Your task to perform on an android device: Show me productivity apps on the Play Store Image 0: 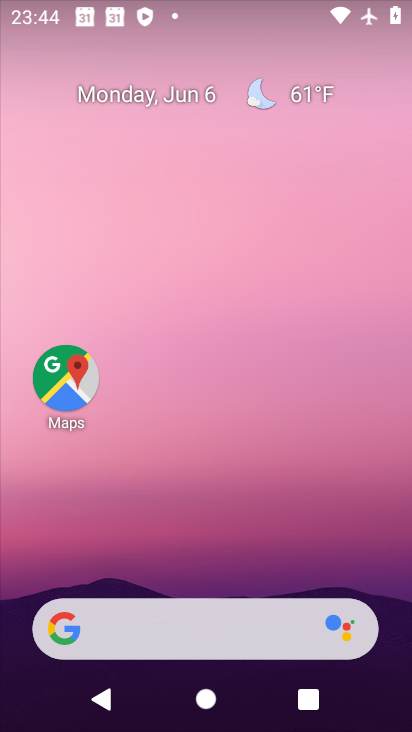
Step 0: drag from (239, 562) to (258, 95)
Your task to perform on an android device: Show me productivity apps on the Play Store Image 1: 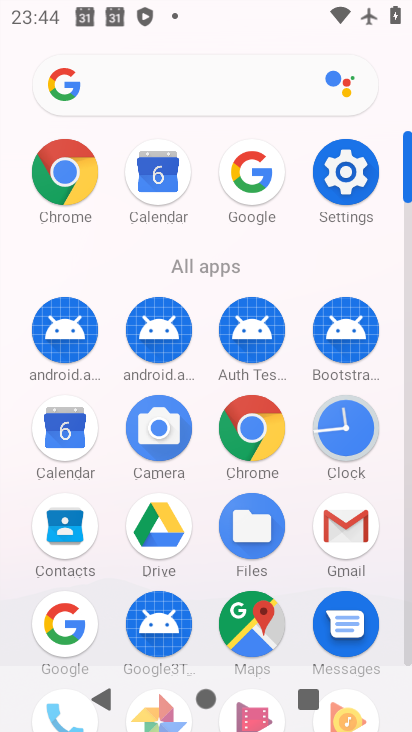
Step 1: drag from (115, 514) to (124, 192)
Your task to perform on an android device: Show me productivity apps on the Play Store Image 2: 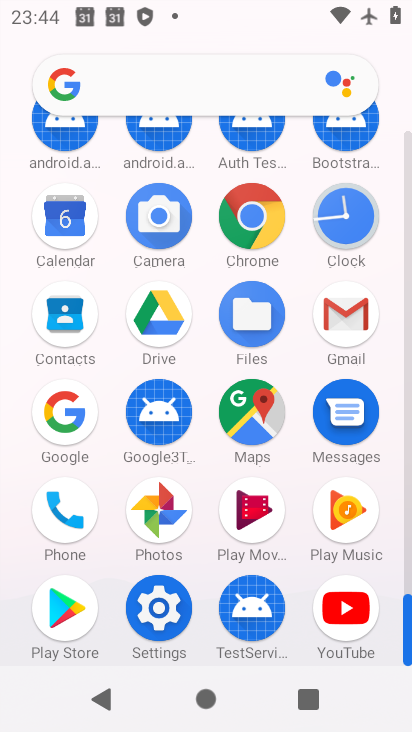
Step 2: click (71, 607)
Your task to perform on an android device: Show me productivity apps on the Play Store Image 3: 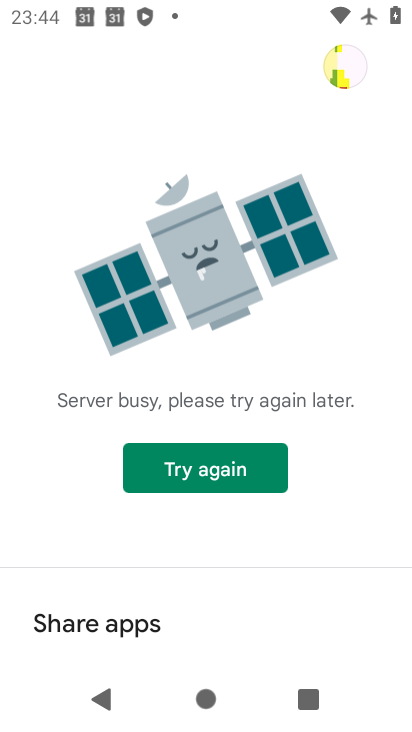
Step 3: task complete